Your task to perform on an android device: Open Maps and search for coffee Image 0: 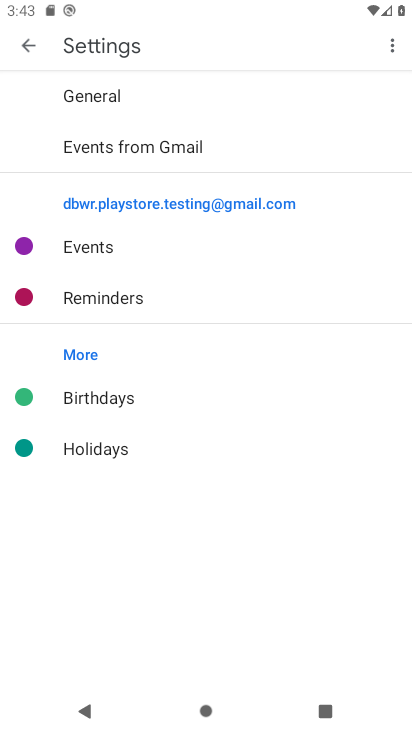
Step 0: press home button
Your task to perform on an android device: Open Maps and search for coffee Image 1: 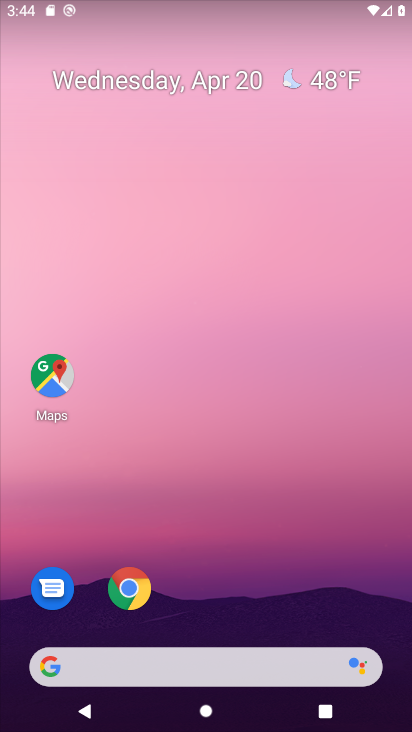
Step 1: drag from (308, 586) to (339, 208)
Your task to perform on an android device: Open Maps and search for coffee Image 2: 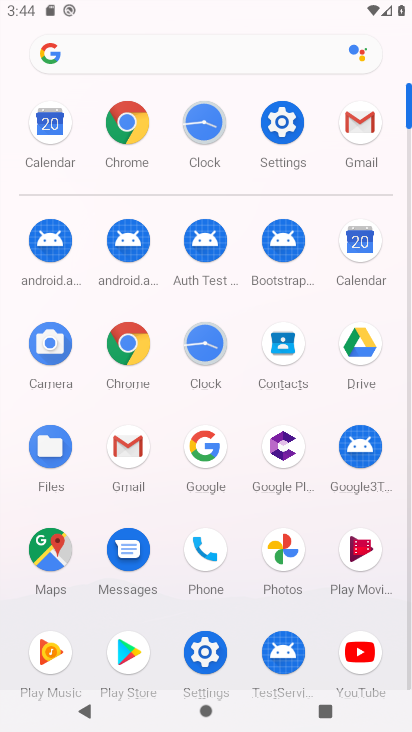
Step 2: click (57, 557)
Your task to perform on an android device: Open Maps and search for coffee Image 3: 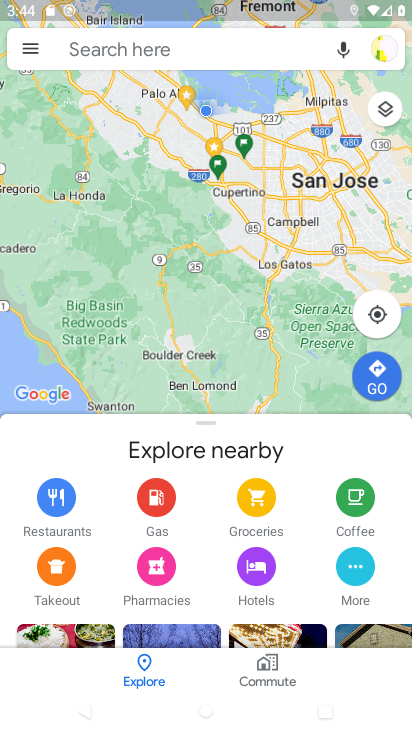
Step 3: click (221, 49)
Your task to perform on an android device: Open Maps and search for coffee Image 4: 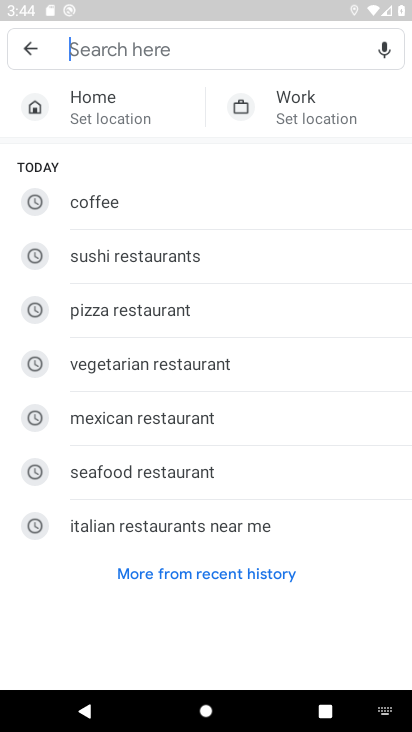
Step 4: type "coffee"
Your task to perform on an android device: Open Maps and search for coffee Image 5: 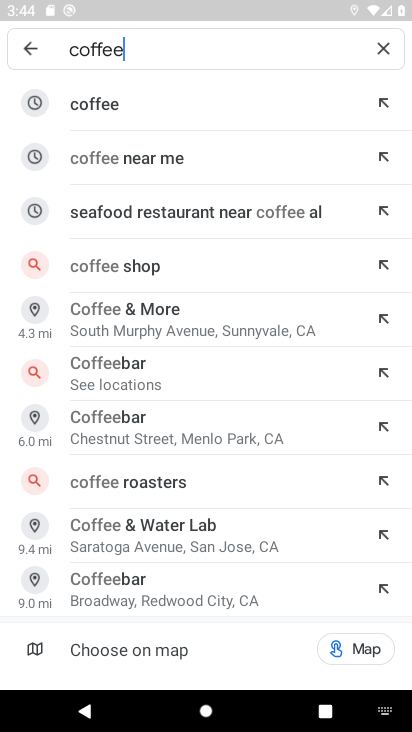
Step 5: click (121, 106)
Your task to perform on an android device: Open Maps and search for coffee Image 6: 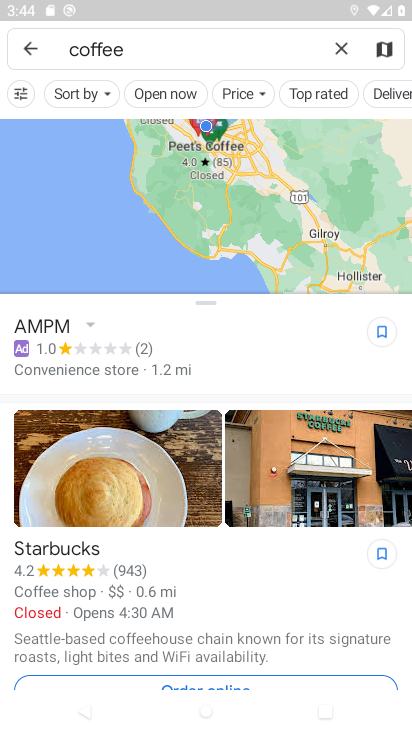
Step 6: task complete